Your task to perform on an android device: toggle sleep mode Image 0: 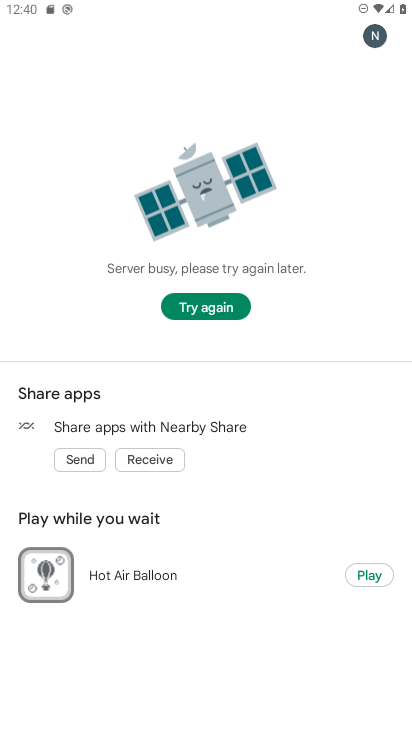
Step 0: press home button
Your task to perform on an android device: toggle sleep mode Image 1: 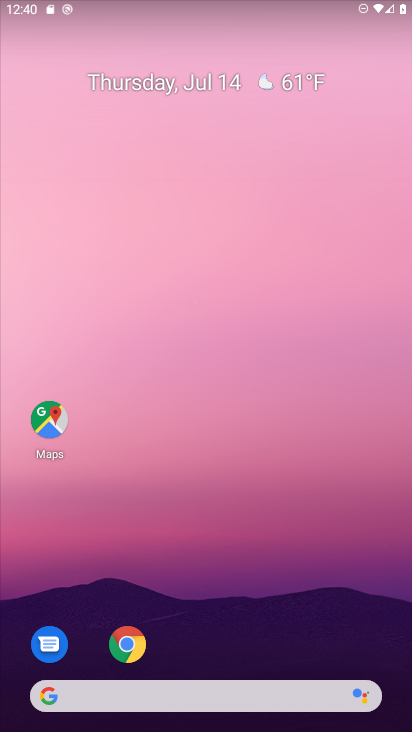
Step 1: drag from (301, 576) to (262, 141)
Your task to perform on an android device: toggle sleep mode Image 2: 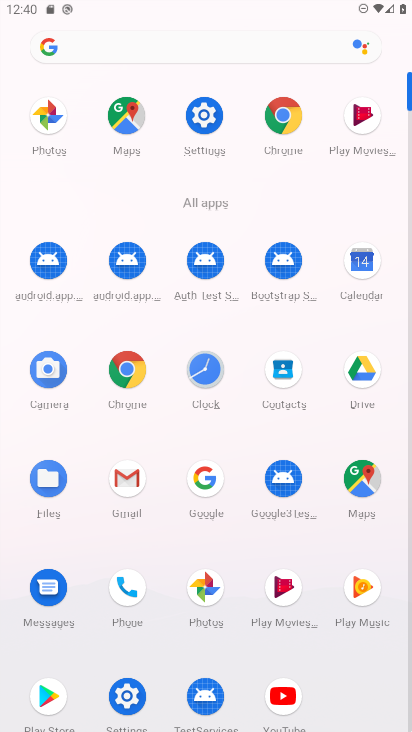
Step 2: click (209, 113)
Your task to perform on an android device: toggle sleep mode Image 3: 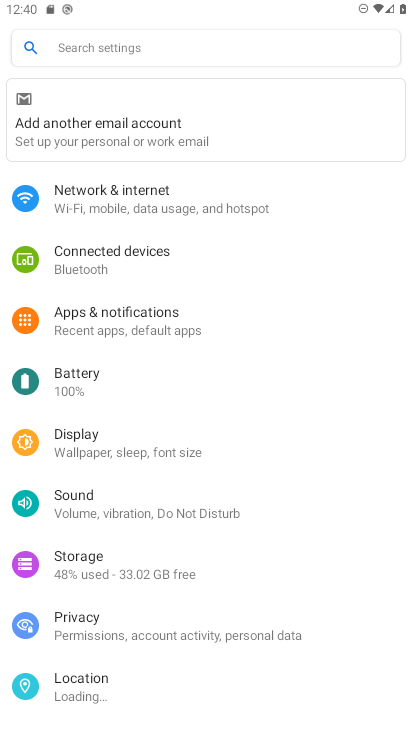
Step 3: click (162, 449)
Your task to perform on an android device: toggle sleep mode Image 4: 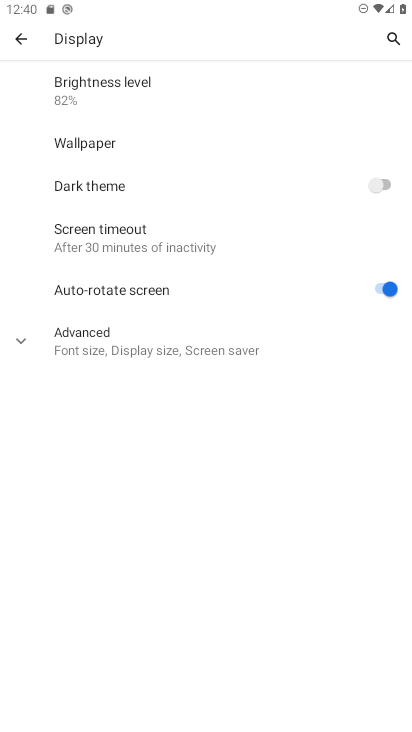
Step 4: click (122, 231)
Your task to perform on an android device: toggle sleep mode Image 5: 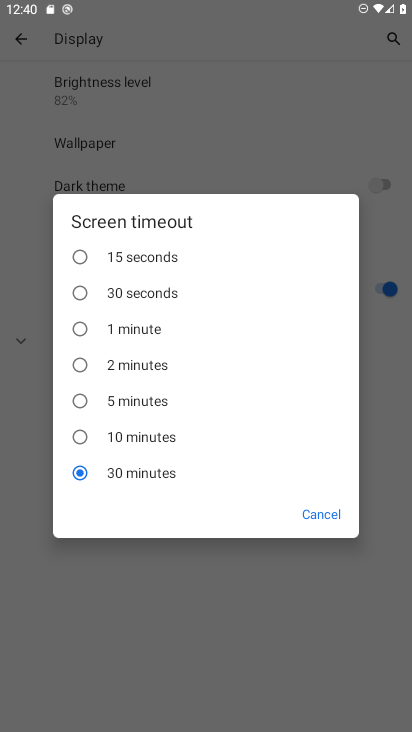
Step 5: click (139, 430)
Your task to perform on an android device: toggle sleep mode Image 6: 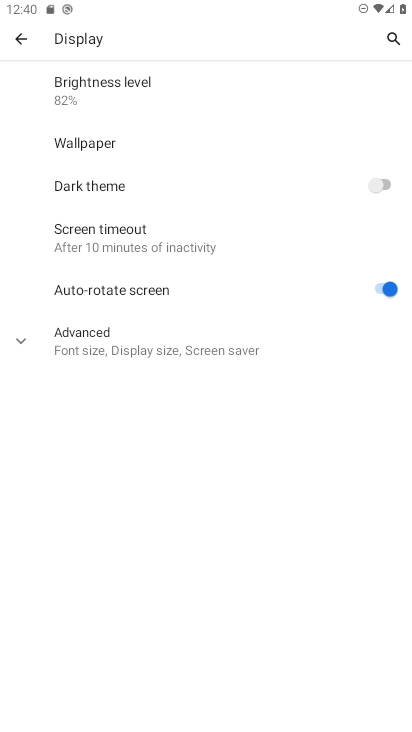
Step 6: task complete